Your task to perform on an android device: Go to accessibility settings Image 0: 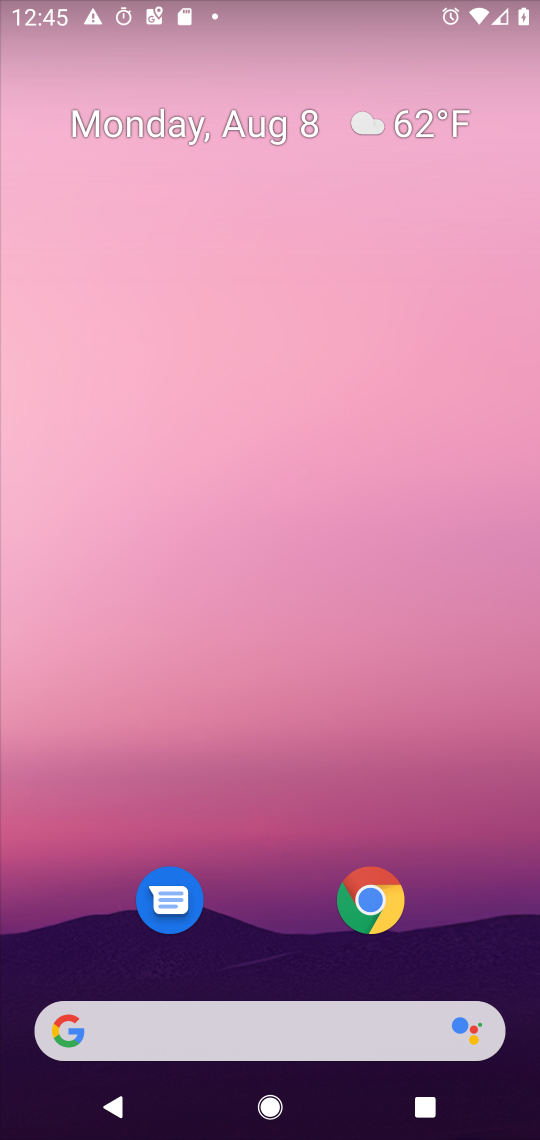
Step 0: press home button
Your task to perform on an android device: Go to accessibility settings Image 1: 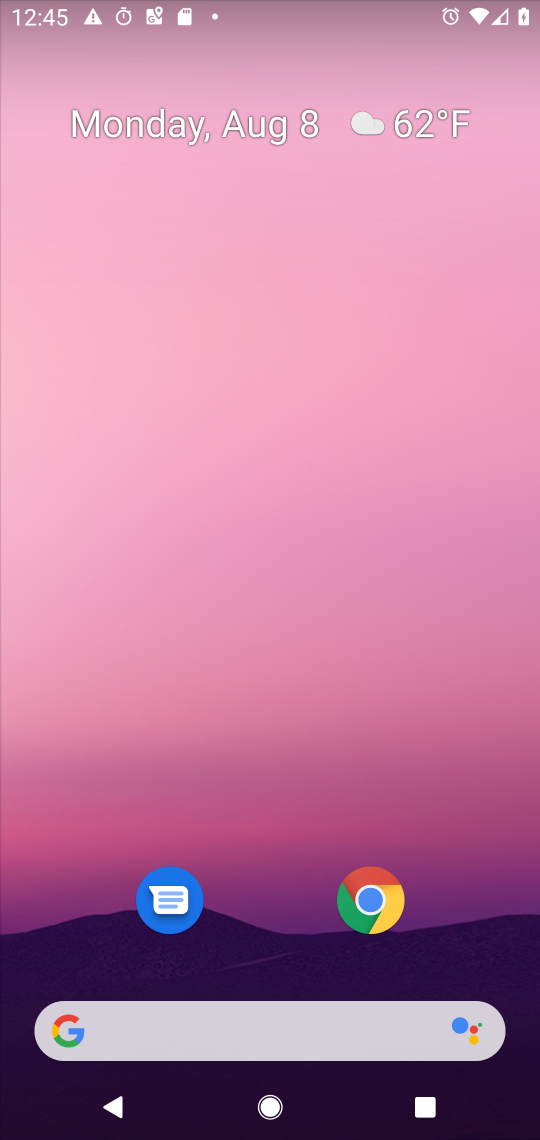
Step 1: drag from (272, 973) to (298, 102)
Your task to perform on an android device: Go to accessibility settings Image 2: 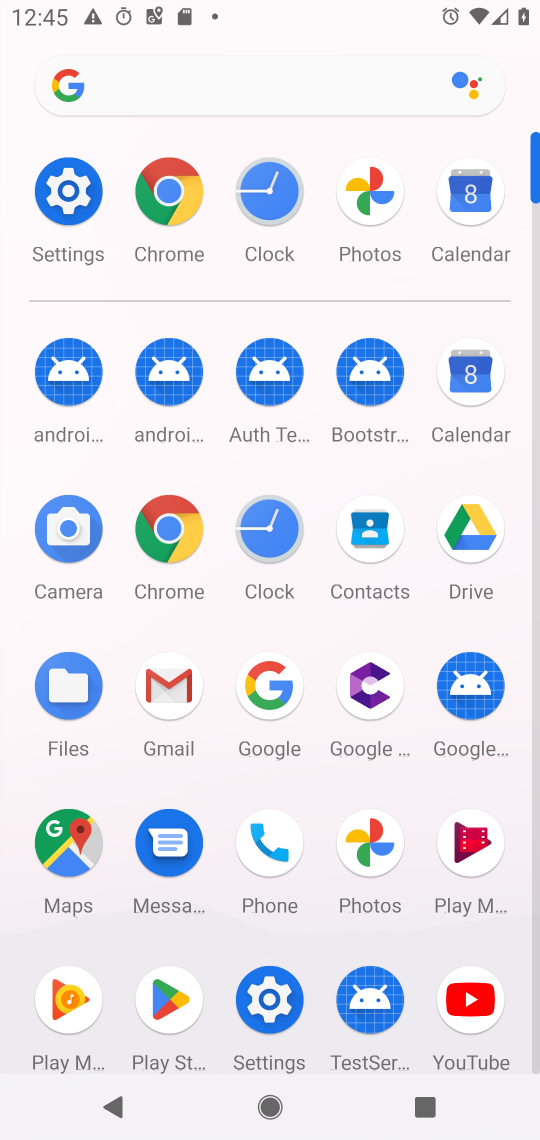
Step 2: click (269, 991)
Your task to perform on an android device: Go to accessibility settings Image 3: 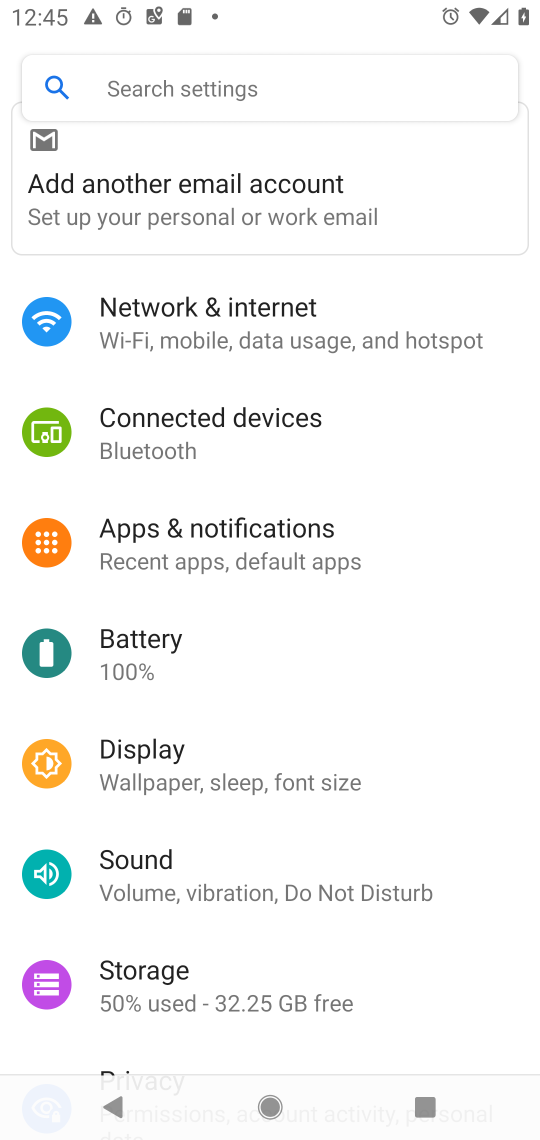
Step 3: drag from (249, 1012) to (255, 272)
Your task to perform on an android device: Go to accessibility settings Image 4: 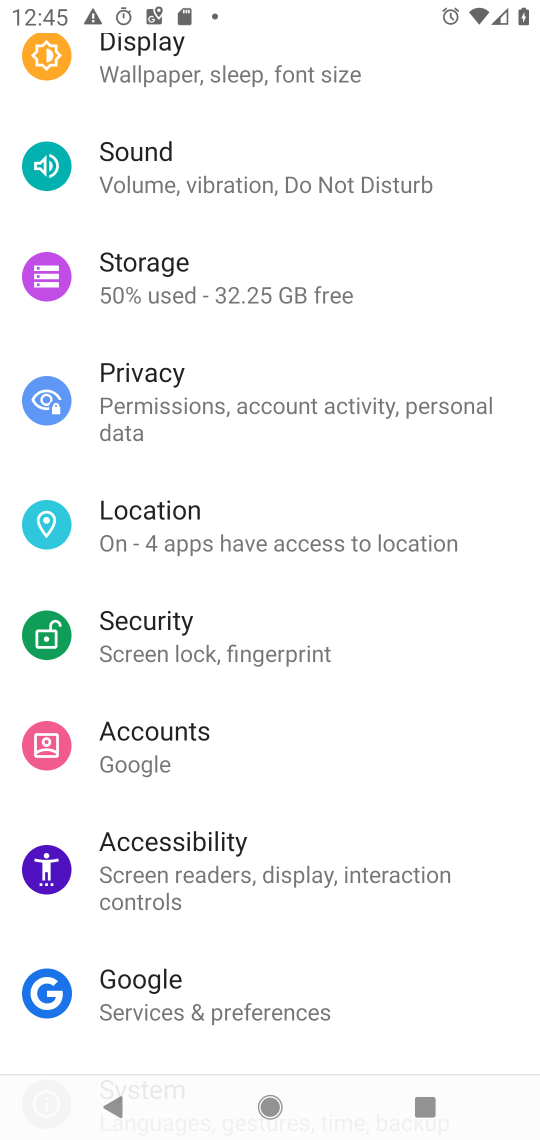
Step 4: click (264, 841)
Your task to perform on an android device: Go to accessibility settings Image 5: 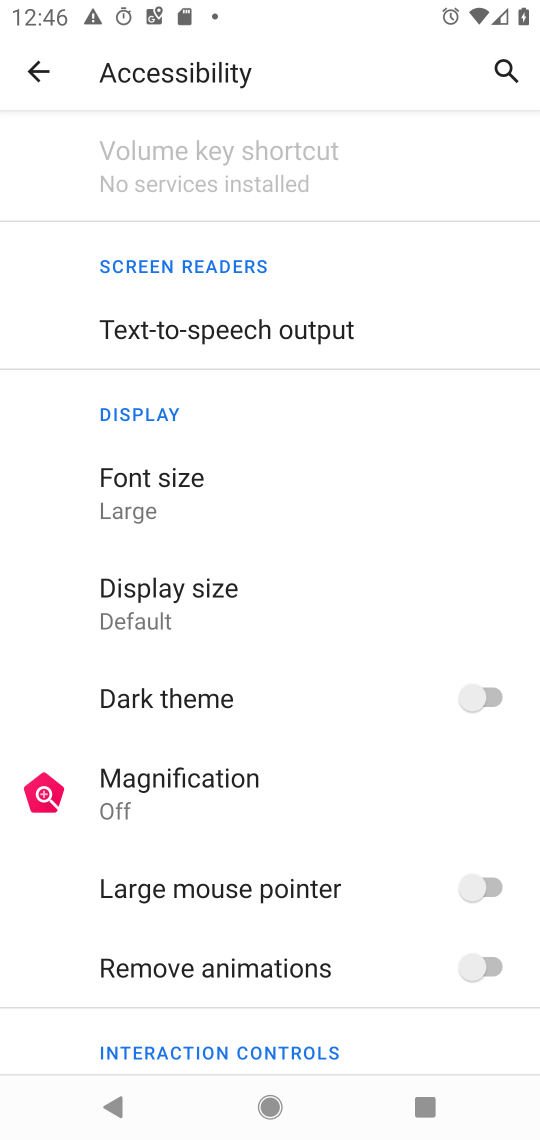
Step 5: task complete